Your task to perform on an android device: check out phone information Image 0: 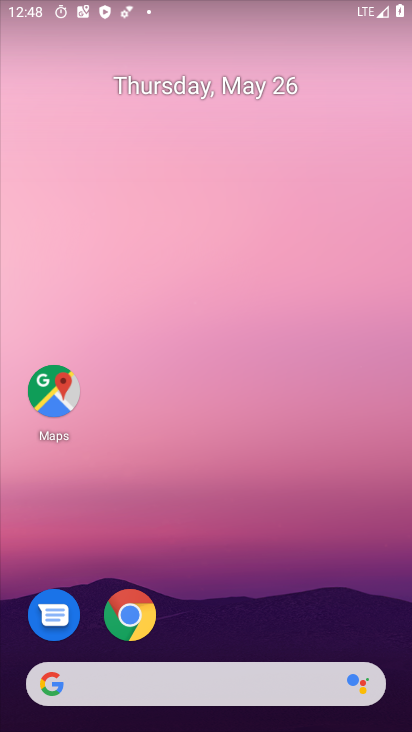
Step 0: drag from (249, 632) to (203, 83)
Your task to perform on an android device: check out phone information Image 1: 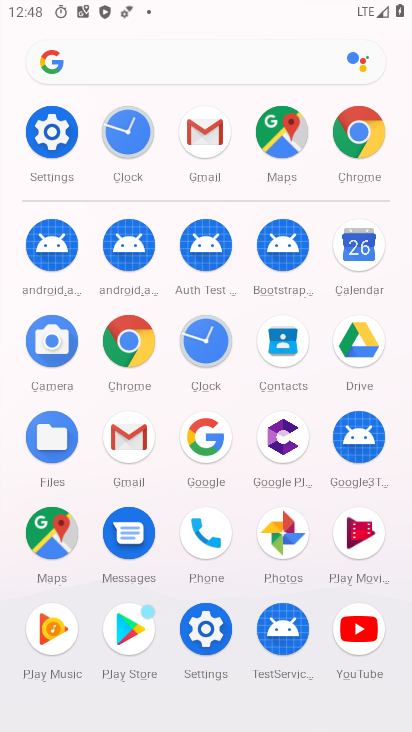
Step 1: click (66, 147)
Your task to perform on an android device: check out phone information Image 2: 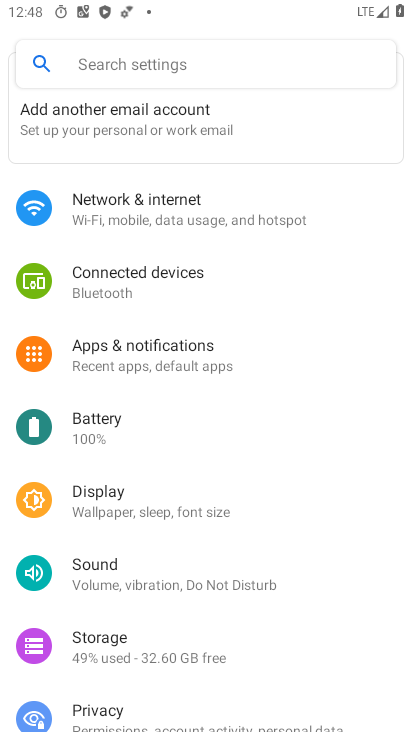
Step 2: drag from (238, 689) to (195, 186)
Your task to perform on an android device: check out phone information Image 3: 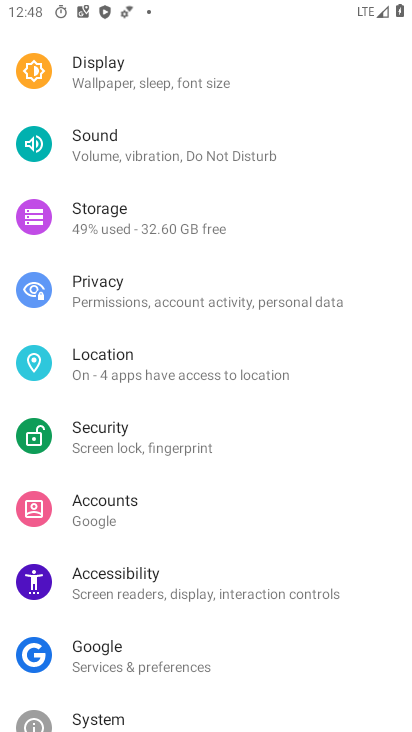
Step 3: drag from (192, 688) to (175, 280)
Your task to perform on an android device: check out phone information Image 4: 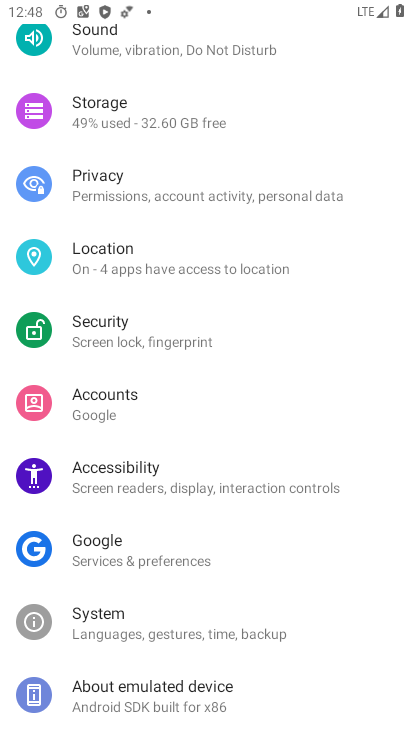
Step 4: click (182, 699)
Your task to perform on an android device: check out phone information Image 5: 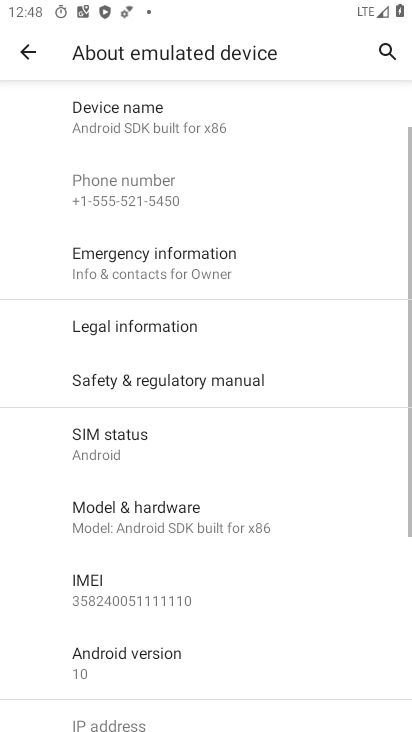
Step 5: task complete